Your task to perform on an android device: turn on bluetooth scan Image 0: 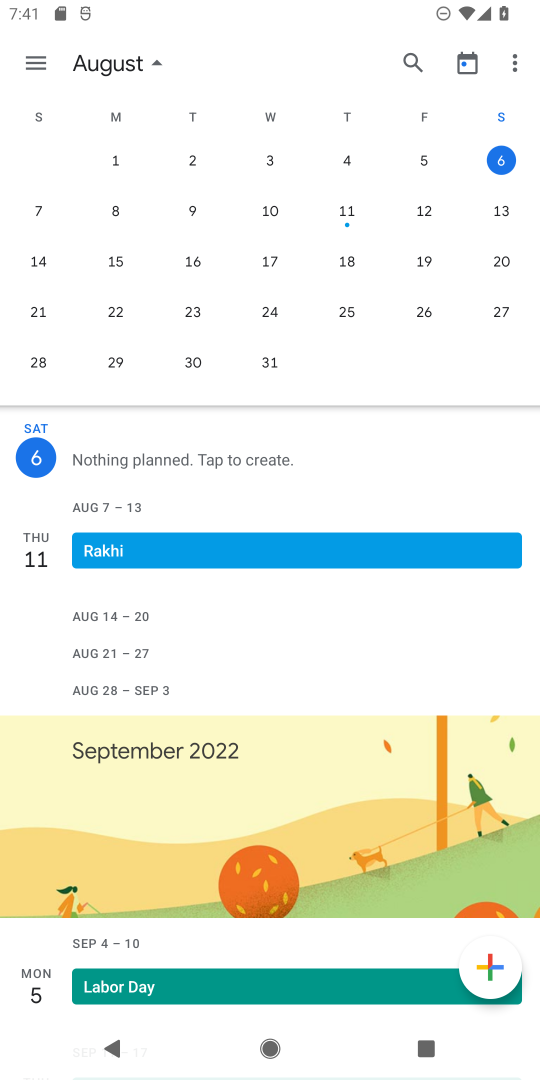
Step 0: press home button
Your task to perform on an android device: turn on bluetooth scan Image 1: 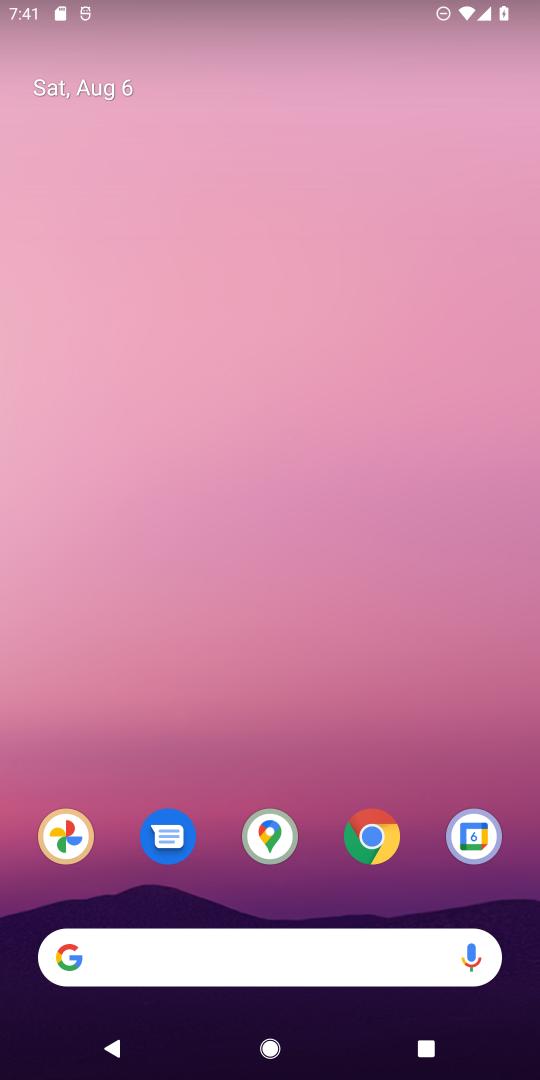
Step 1: drag from (270, 944) to (339, 449)
Your task to perform on an android device: turn on bluetooth scan Image 2: 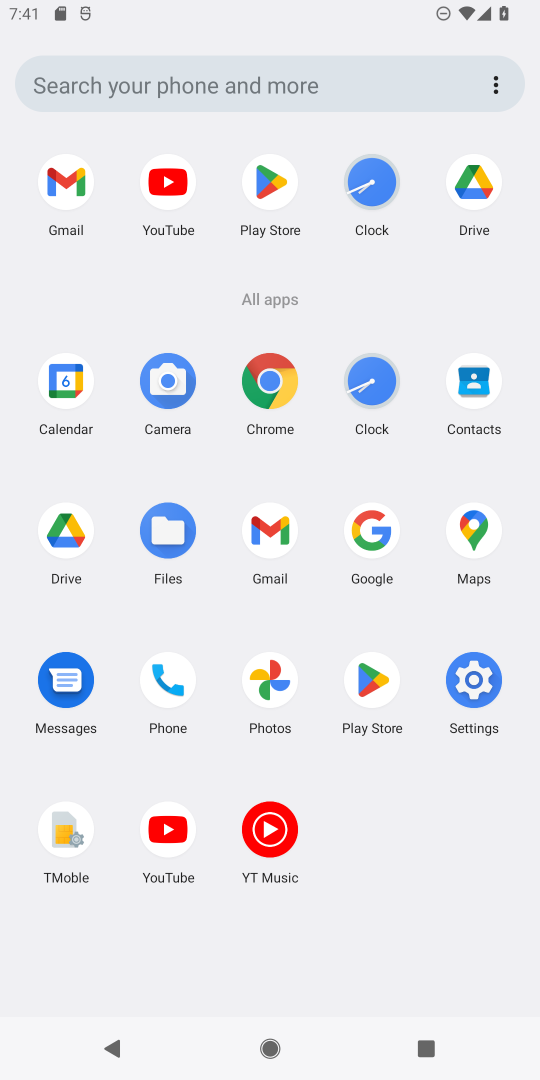
Step 2: click (480, 698)
Your task to perform on an android device: turn on bluetooth scan Image 3: 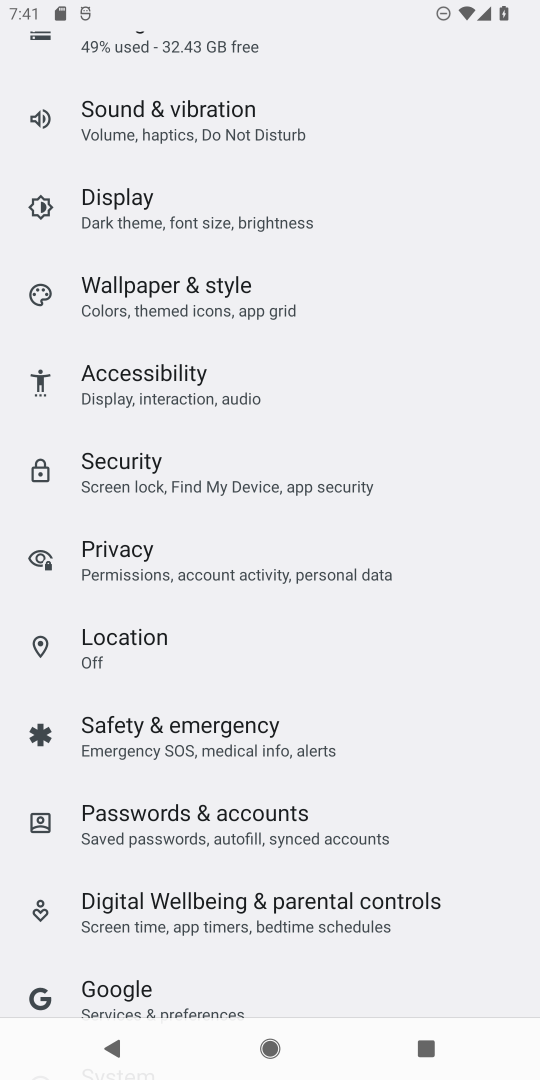
Step 3: click (147, 651)
Your task to perform on an android device: turn on bluetooth scan Image 4: 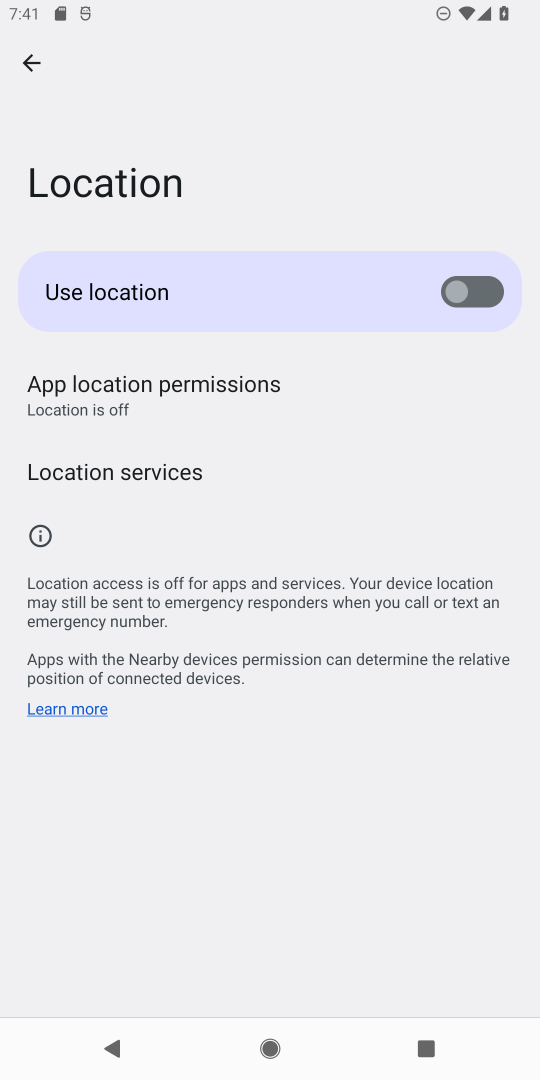
Step 4: click (166, 486)
Your task to perform on an android device: turn on bluetooth scan Image 5: 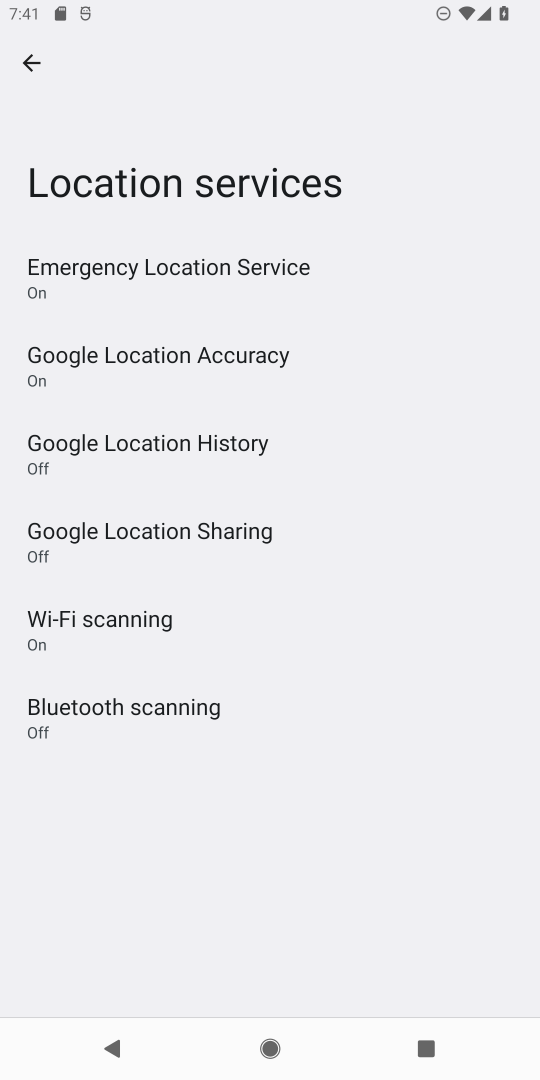
Step 5: click (129, 709)
Your task to perform on an android device: turn on bluetooth scan Image 6: 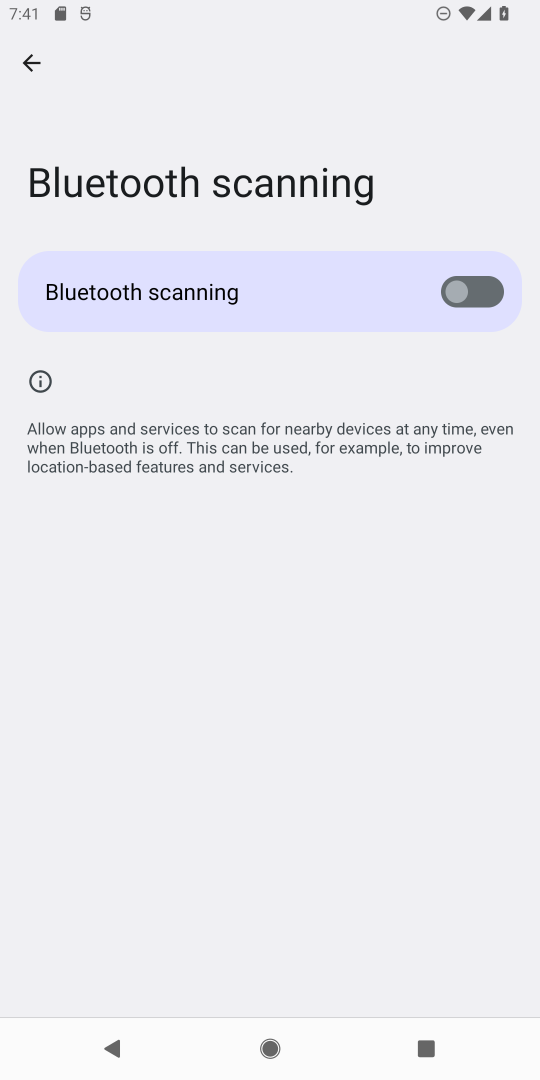
Step 6: click (477, 301)
Your task to perform on an android device: turn on bluetooth scan Image 7: 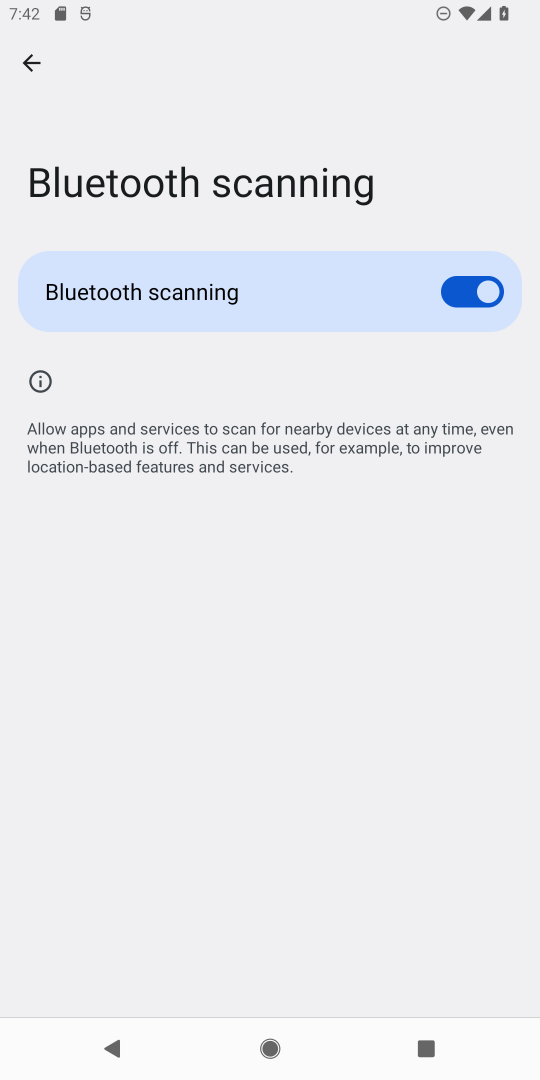
Step 7: task complete